Your task to perform on an android device: all mails in gmail Image 0: 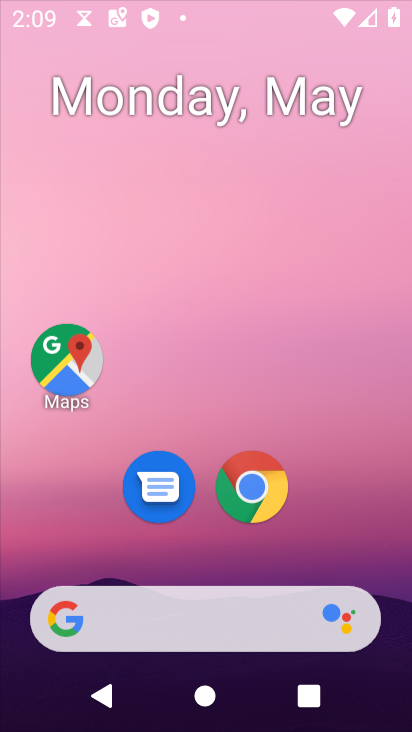
Step 0: drag from (329, 196) to (317, 152)
Your task to perform on an android device: all mails in gmail Image 1: 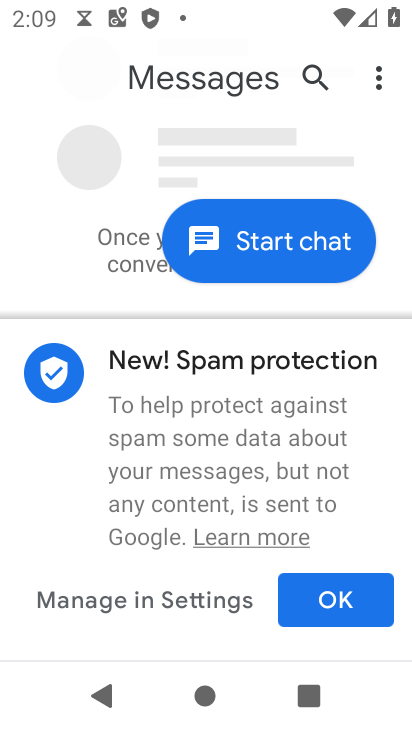
Step 1: press home button
Your task to perform on an android device: all mails in gmail Image 2: 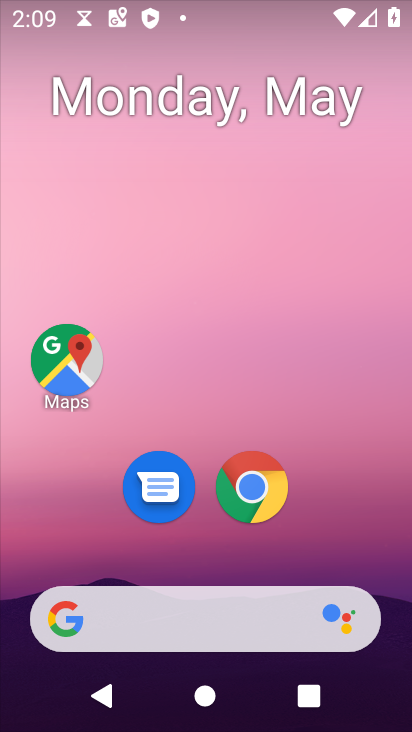
Step 2: drag from (374, 536) to (385, 46)
Your task to perform on an android device: all mails in gmail Image 3: 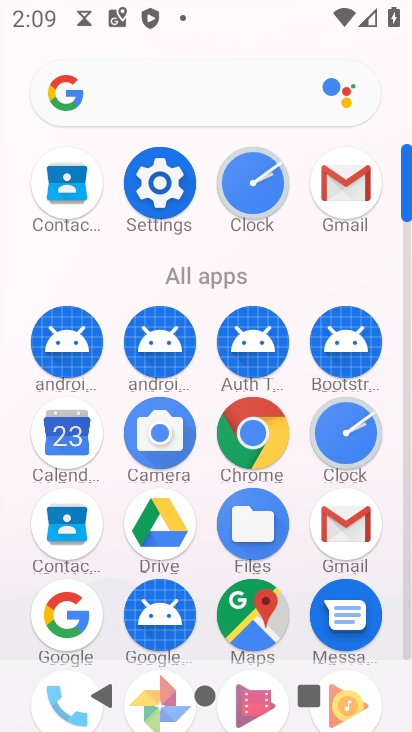
Step 3: click (349, 183)
Your task to perform on an android device: all mails in gmail Image 4: 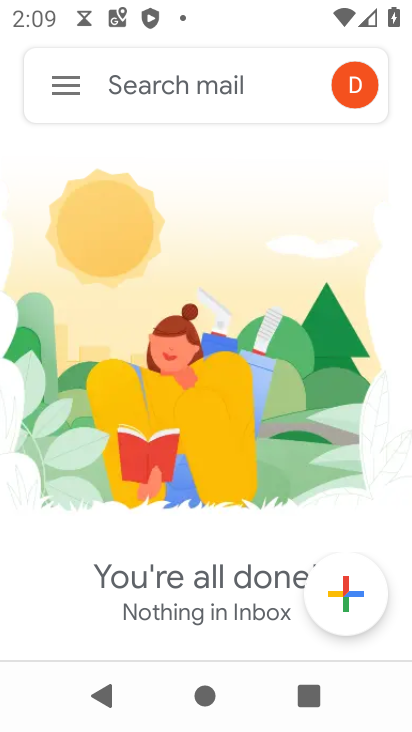
Step 4: click (73, 83)
Your task to perform on an android device: all mails in gmail Image 5: 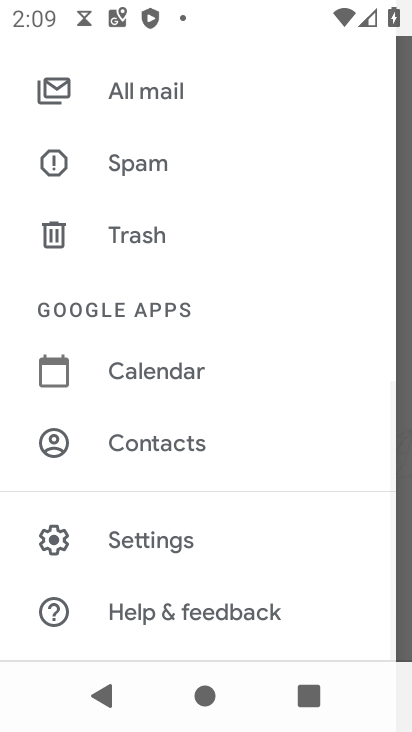
Step 5: click (82, 87)
Your task to perform on an android device: all mails in gmail Image 6: 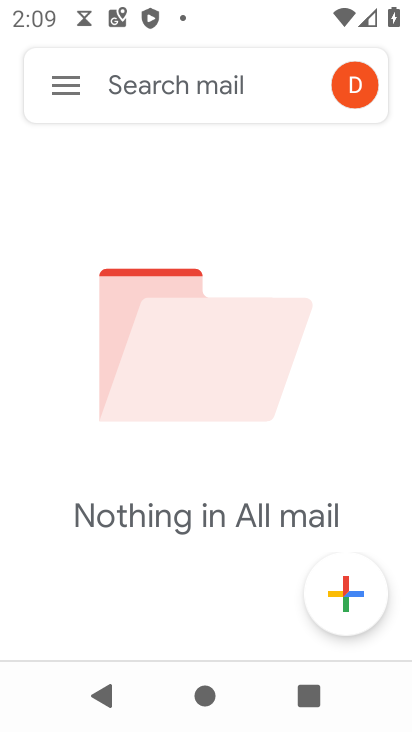
Step 6: task complete